Your task to perform on an android device: Go to network settings Image 0: 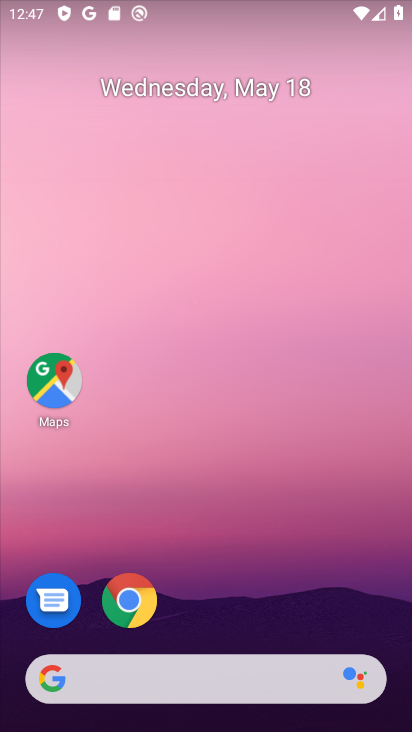
Step 0: drag from (193, 601) to (239, 283)
Your task to perform on an android device: Go to network settings Image 1: 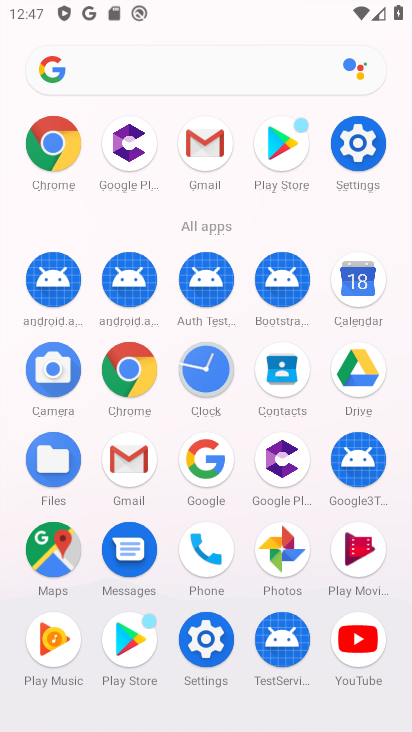
Step 1: click (360, 143)
Your task to perform on an android device: Go to network settings Image 2: 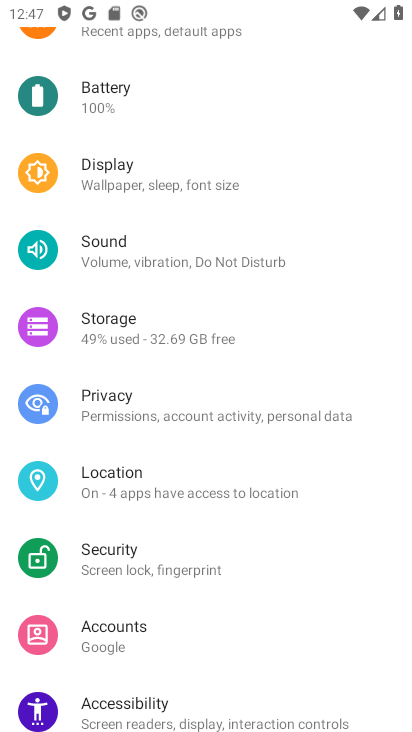
Step 2: drag from (222, 150) to (180, 601)
Your task to perform on an android device: Go to network settings Image 3: 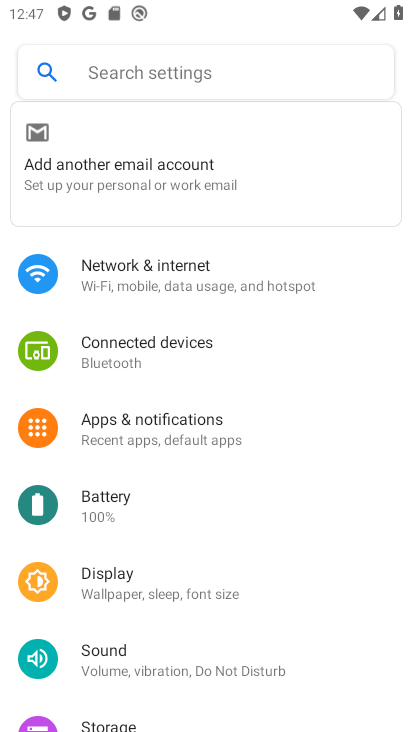
Step 3: click (208, 284)
Your task to perform on an android device: Go to network settings Image 4: 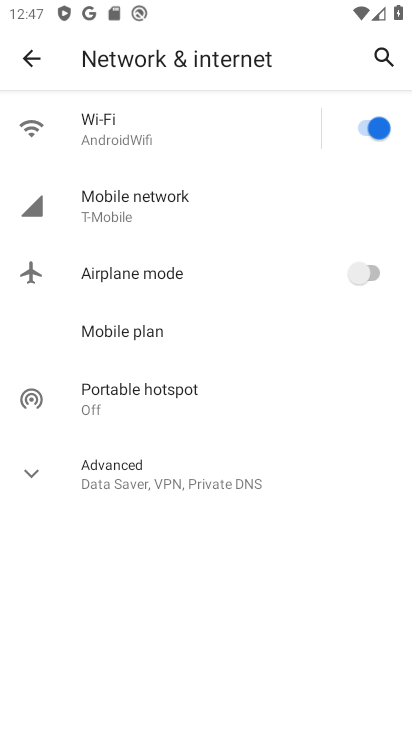
Step 4: click (188, 216)
Your task to perform on an android device: Go to network settings Image 5: 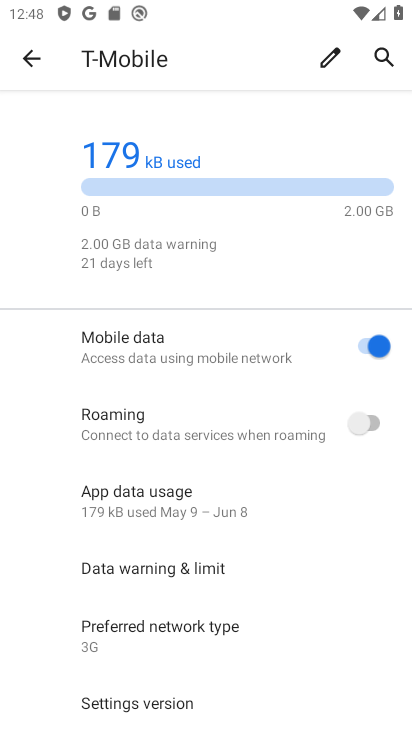
Step 5: task complete